Your task to perform on an android device: open app "Google Docs" Image 0: 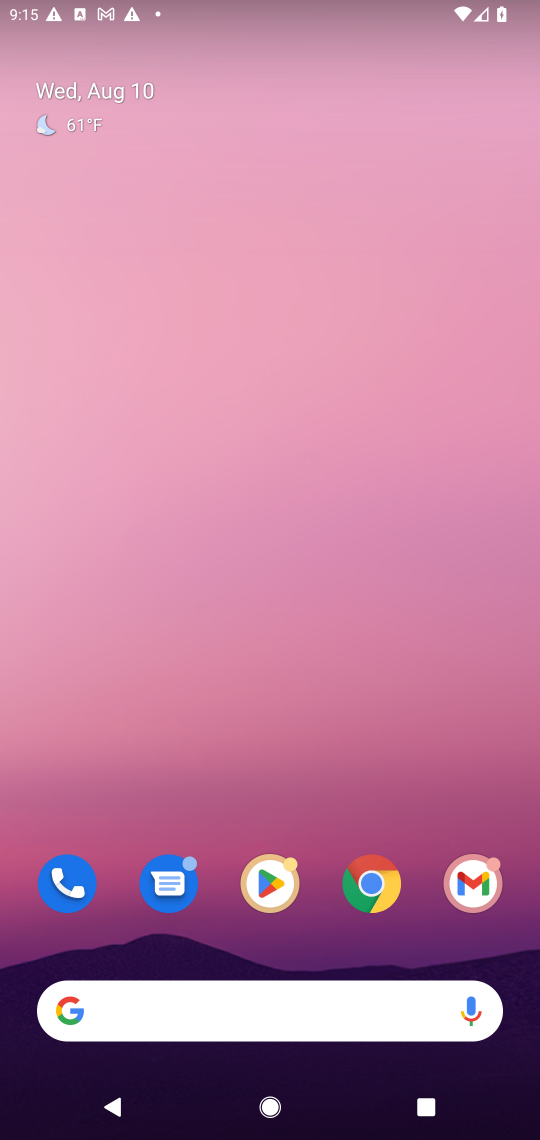
Step 0: click (263, 878)
Your task to perform on an android device: open app "Google Docs" Image 1: 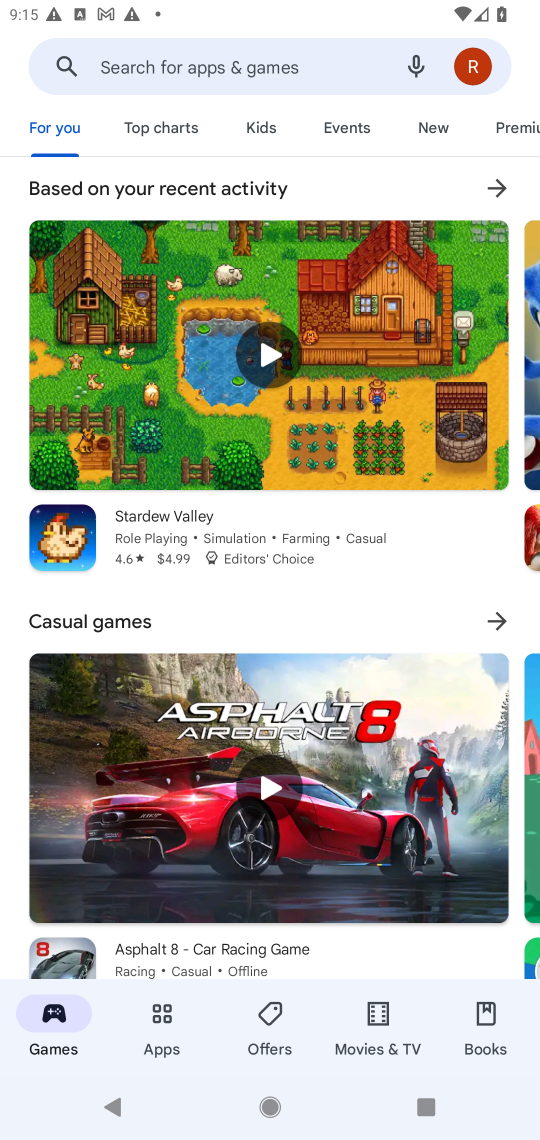
Step 1: click (301, 66)
Your task to perform on an android device: open app "Google Docs" Image 2: 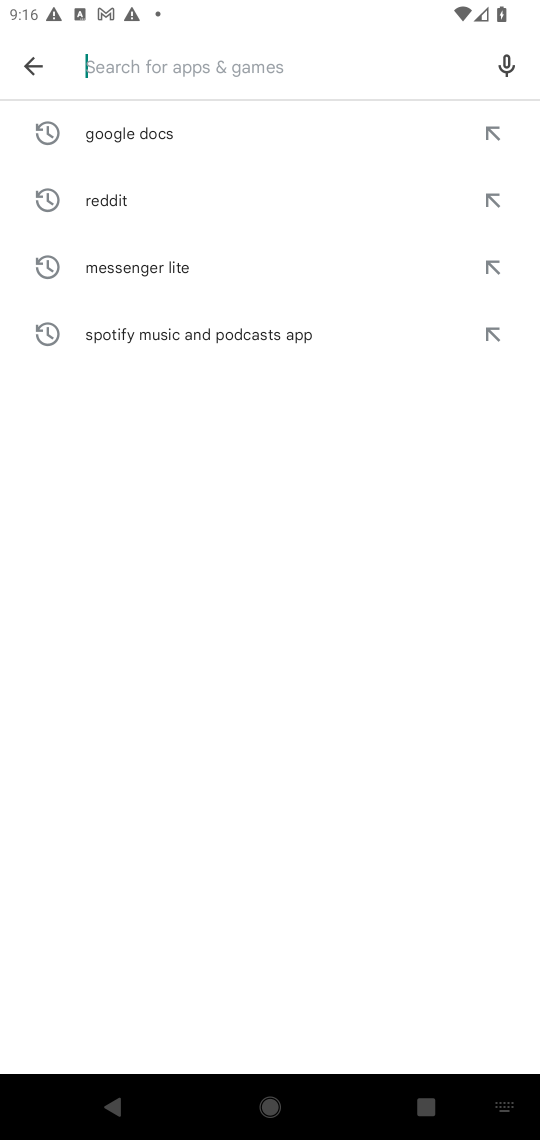
Step 2: type "Google Docs"
Your task to perform on an android device: open app "Google Docs" Image 3: 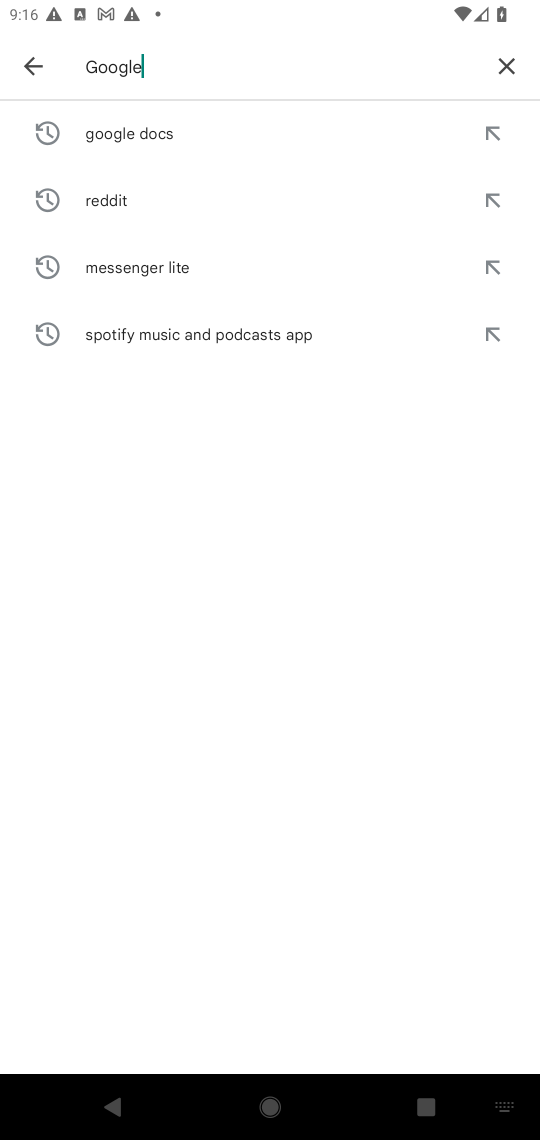
Step 3: type ""
Your task to perform on an android device: open app "Google Docs" Image 4: 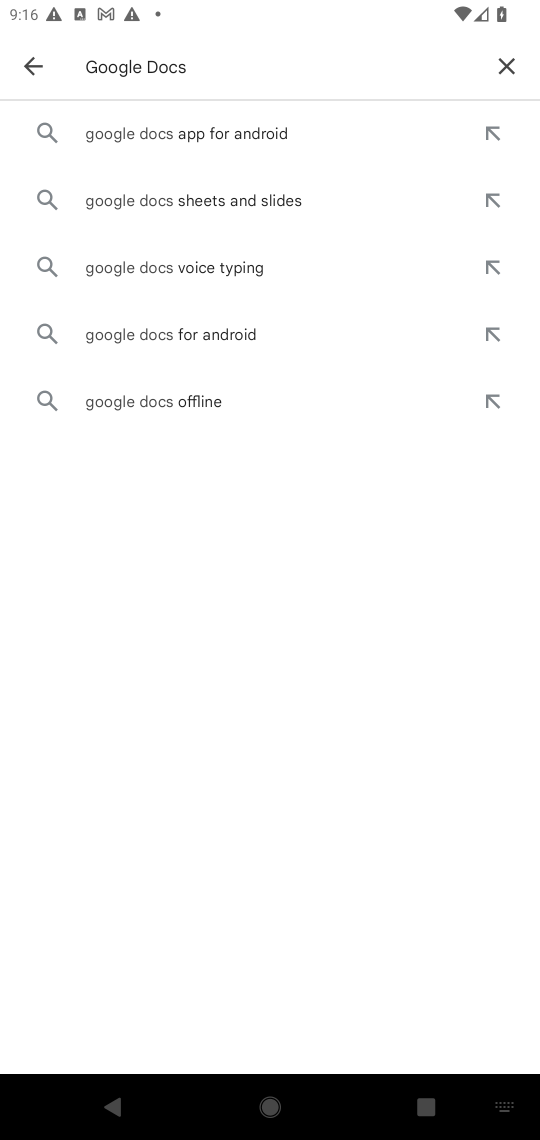
Step 4: click (231, 135)
Your task to perform on an android device: open app "Google Docs" Image 5: 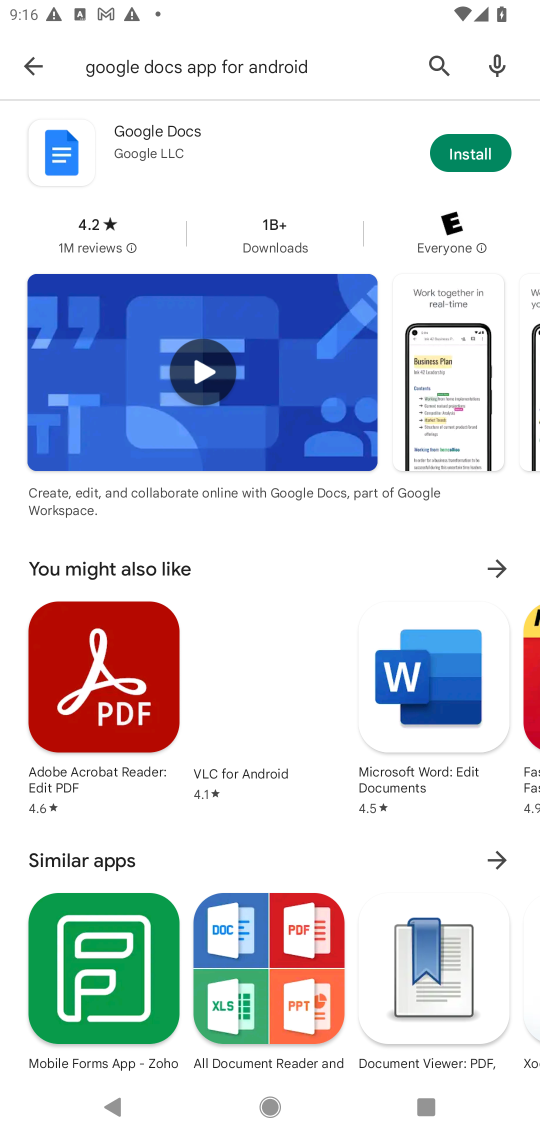
Step 5: task complete